Your task to perform on an android device: Open Youtube and go to the subscriptions tab Image 0: 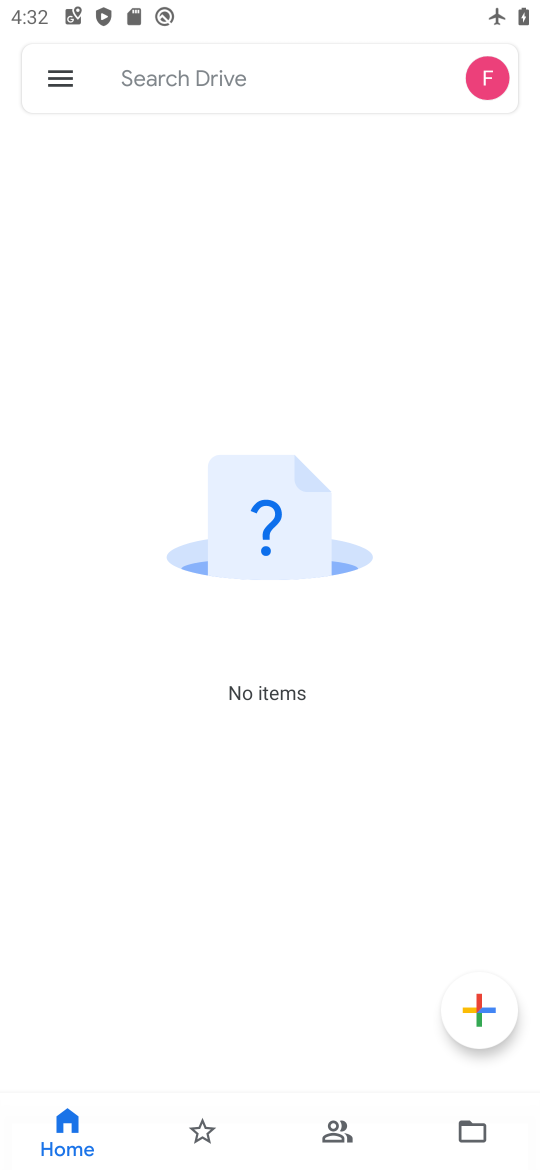
Step 0: press home button
Your task to perform on an android device: Open Youtube and go to the subscriptions tab Image 1: 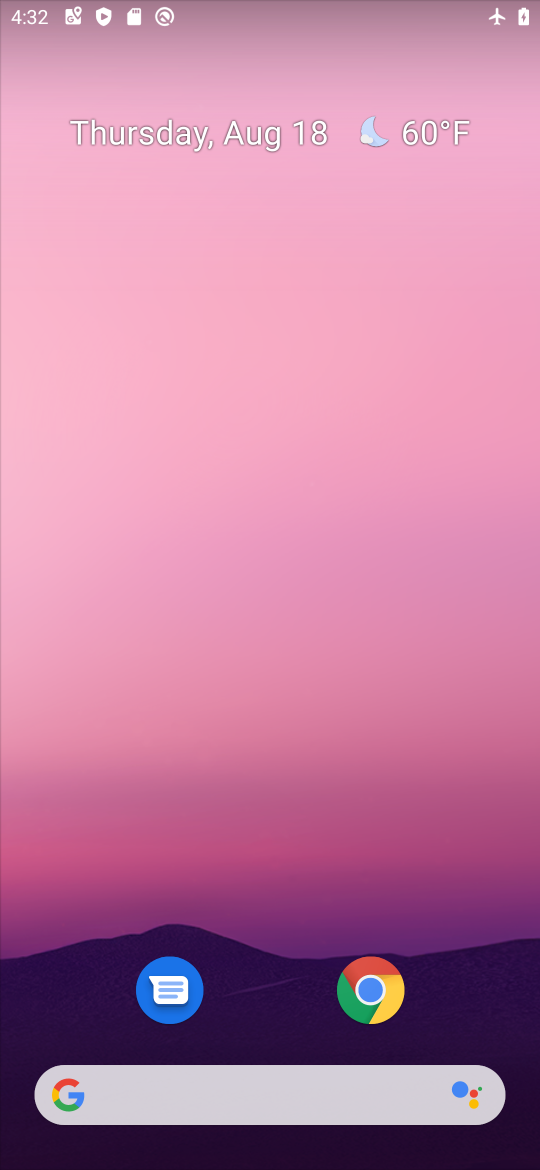
Step 1: drag from (260, 1033) to (339, 170)
Your task to perform on an android device: Open Youtube and go to the subscriptions tab Image 2: 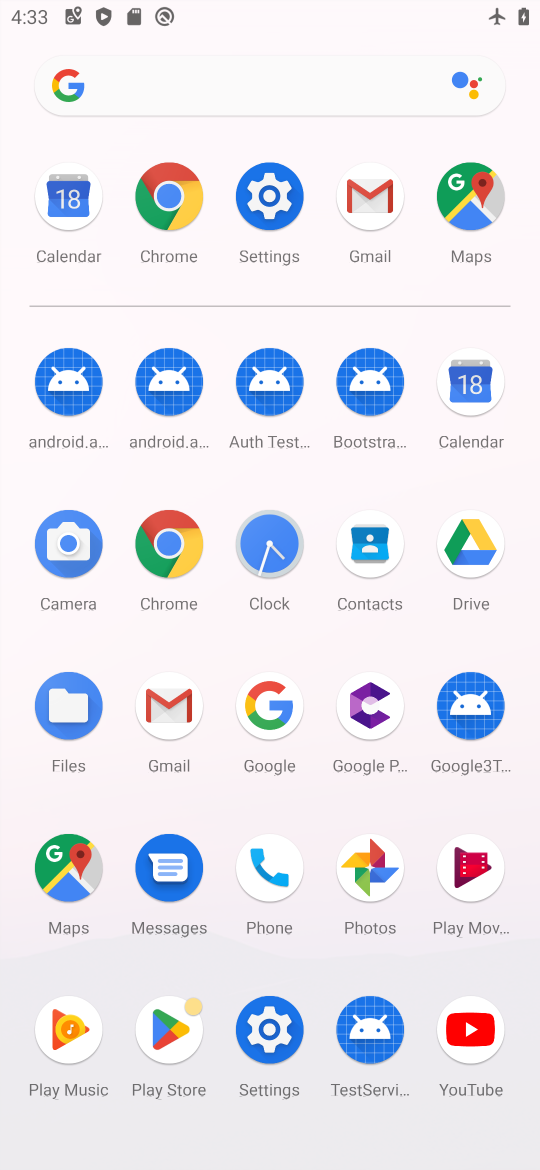
Step 2: click (468, 1026)
Your task to perform on an android device: Open Youtube and go to the subscriptions tab Image 3: 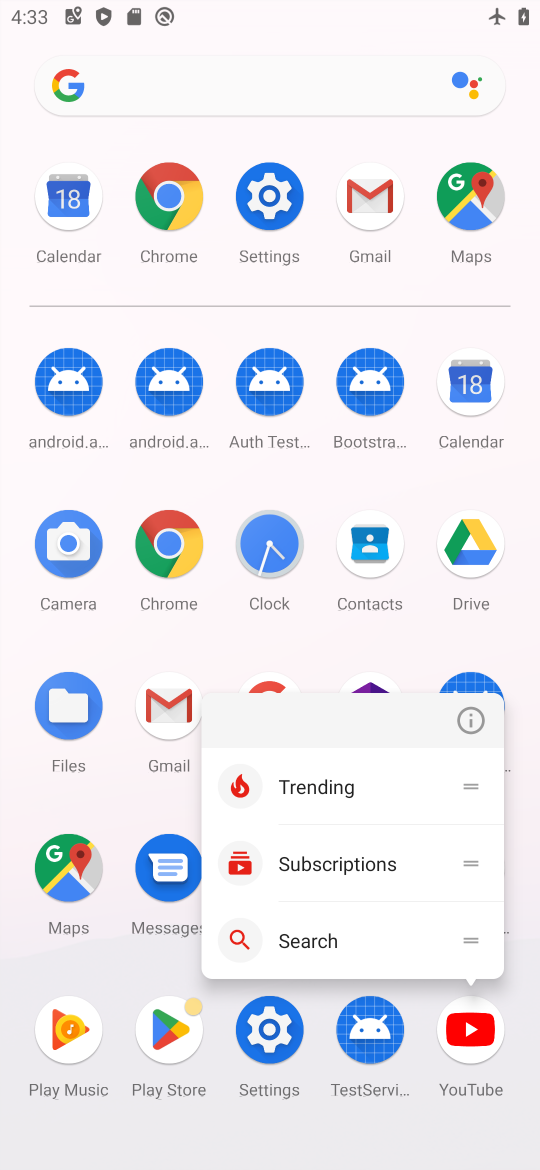
Step 3: click (468, 1024)
Your task to perform on an android device: Open Youtube and go to the subscriptions tab Image 4: 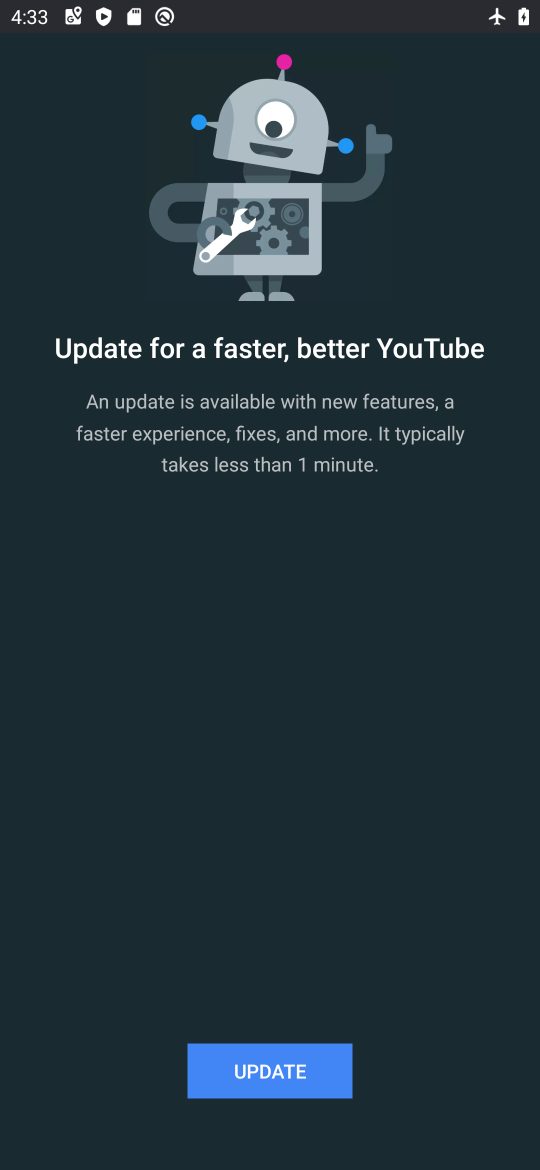
Step 4: click (239, 1038)
Your task to perform on an android device: Open Youtube and go to the subscriptions tab Image 5: 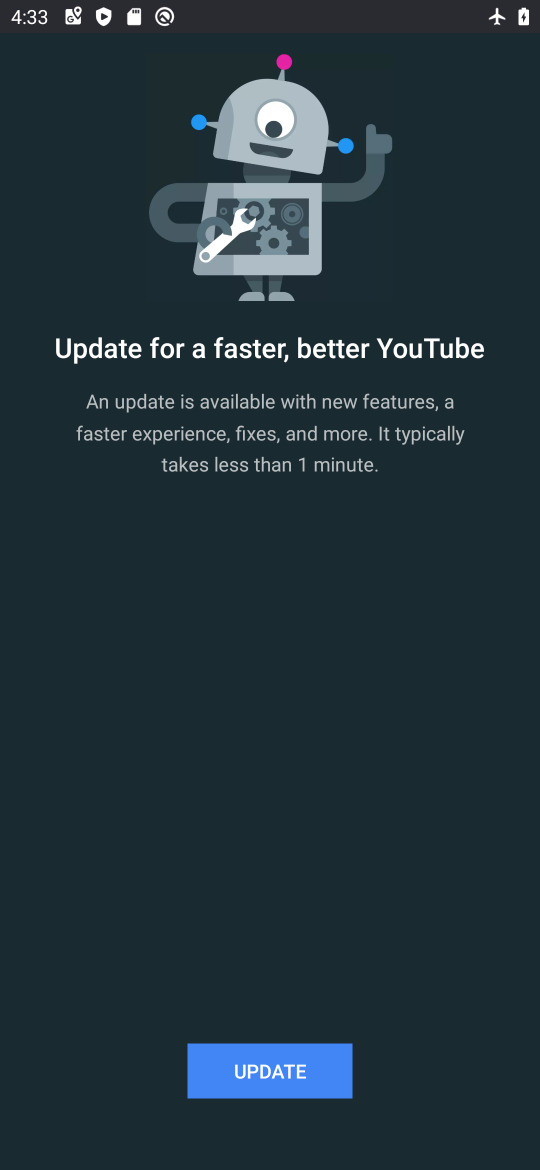
Step 5: click (258, 1046)
Your task to perform on an android device: Open Youtube and go to the subscriptions tab Image 6: 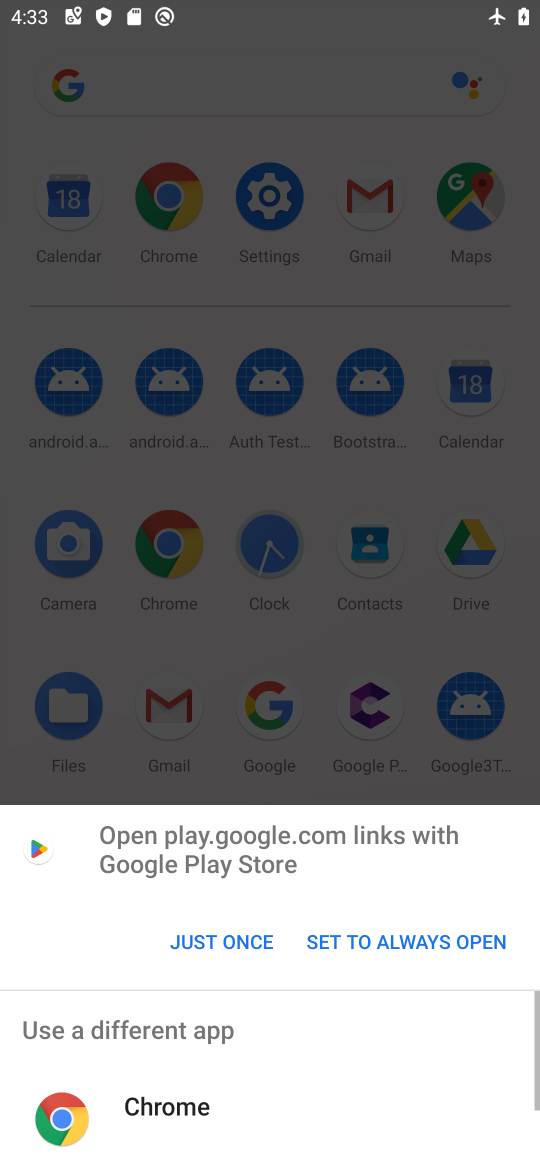
Step 6: click (183, 941)
Your task to perform on an android device: Open Youtube and go to the subscriptions tab Image 7: 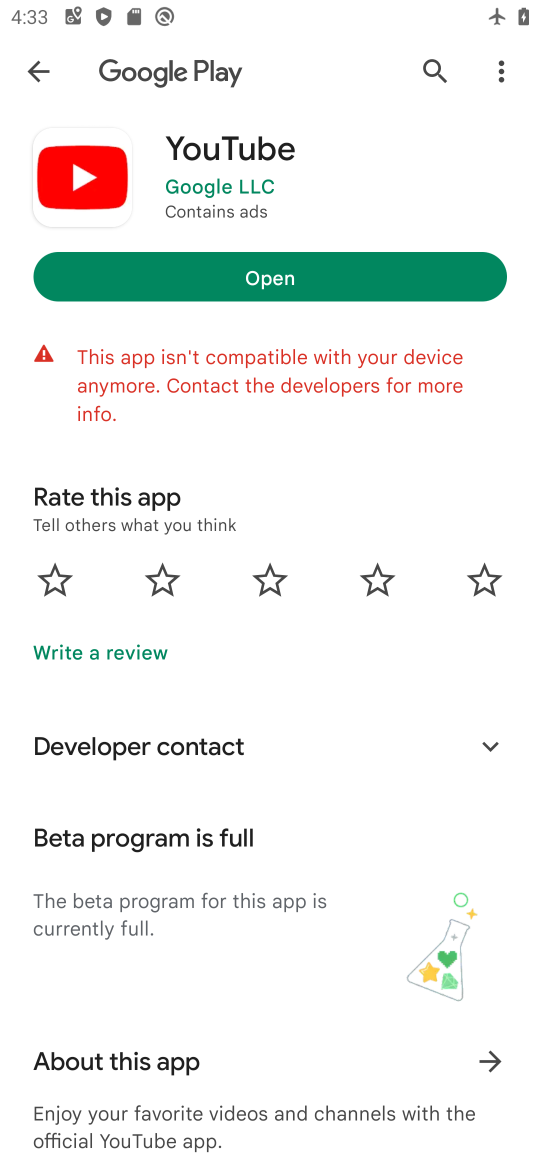
Step 7: task complete